Your task to perform on an android device: What's on my calendar today? Image 0: 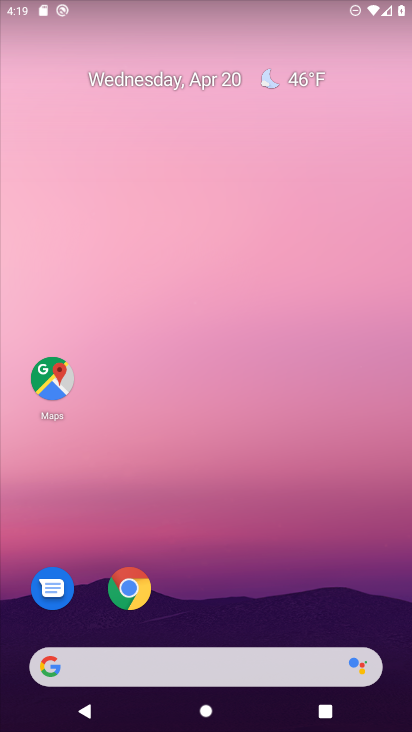
Step 0: drag from (206, 727) to (217, 86)
Your task to perform on an android device: What's on my calendar today? Image 1: 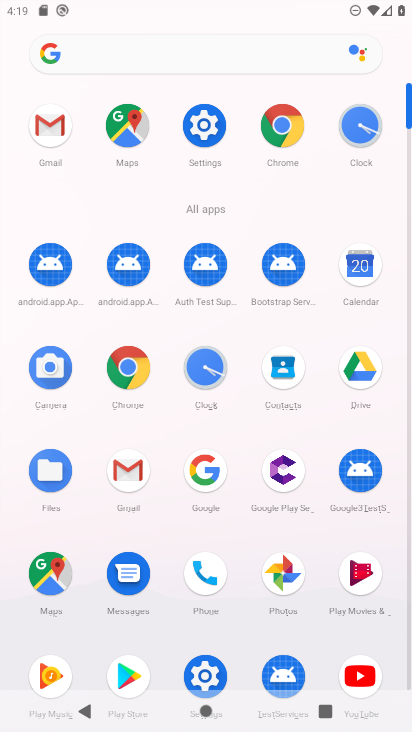
Step 1: click (365, 257)
Your task to perform on an android device: What's on my calendar today? Image 2: 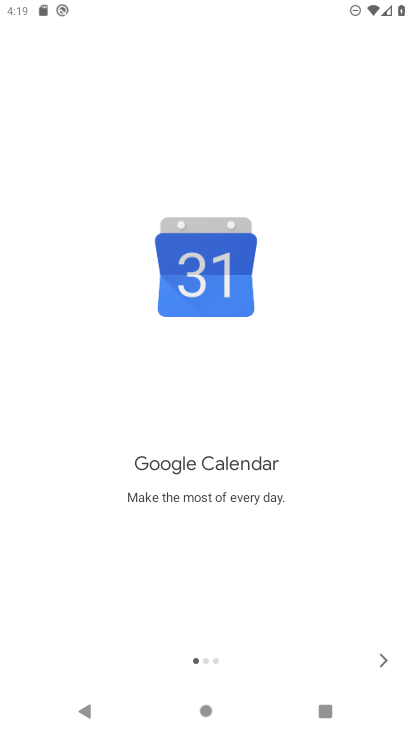
Step 2: click (384, 661)
Your task to perform on an android device: What's on my calendar today? Image 3: 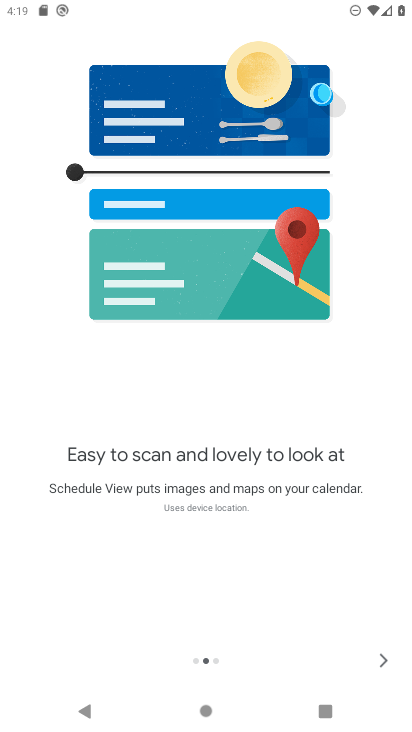
Step 3: click (384, 661)
Your task to perform on an android device: What's on my calendar today? Image 4: 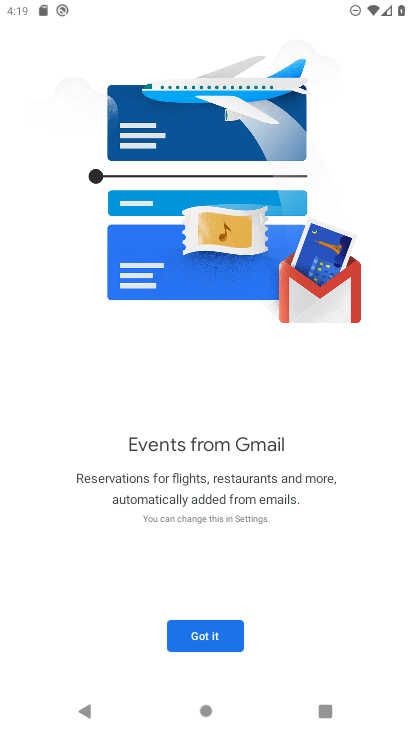
Step 4: click (227, 635)
Your task to perform on an android device: What's on my calendar today? Image 5: 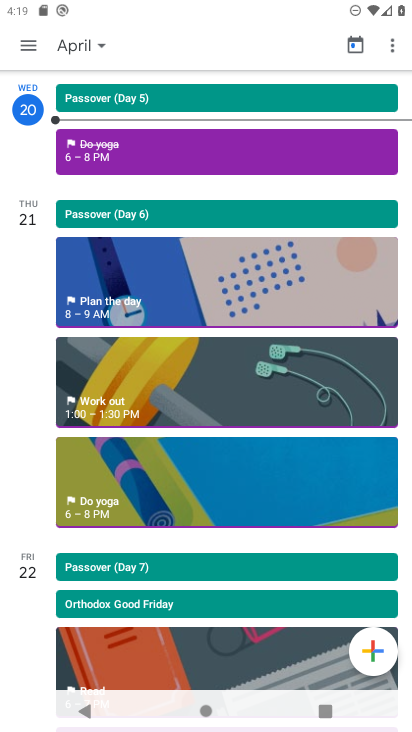
Step 5: click (81, 40)
Your task to perform on an android device: What's on my calendar today? Image 6: 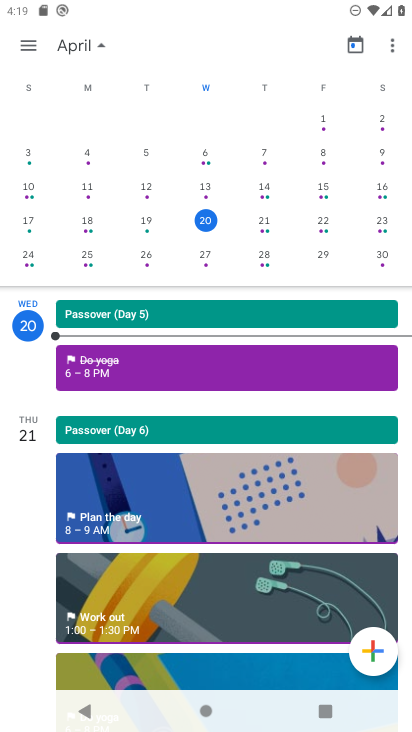
Step 6: click (205, 223)
Your task to perform on an android device: What's on my calendar today? Image 7: 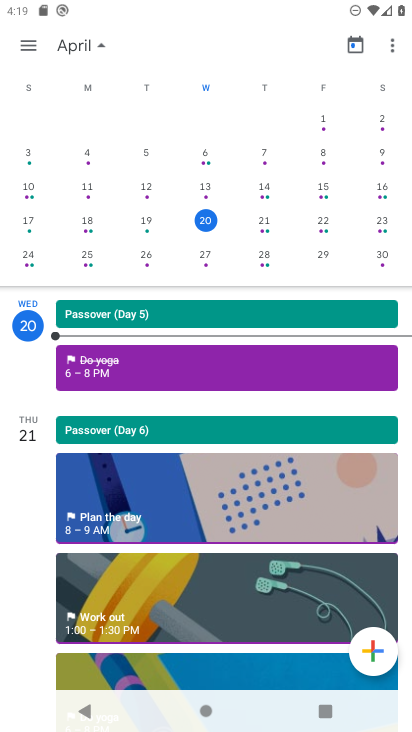
Step 7: task complete